Your task to perform on an android device: see creations saved in the google photos Image 0: 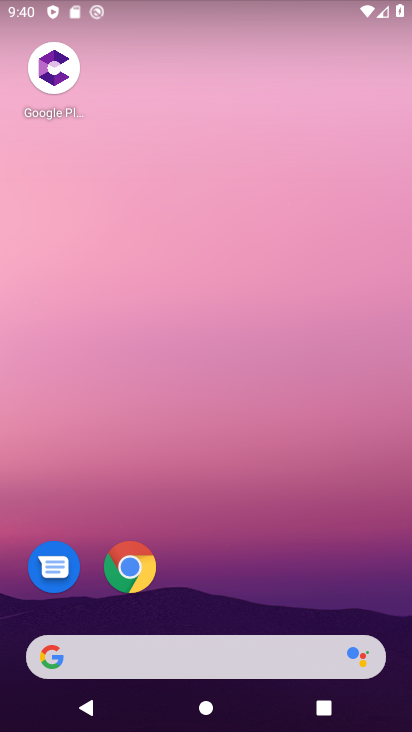
Step 0: drag from (247, 587) to (245, 55)
Your task to perform on an android device: see creations saved in the google photos Image 1: 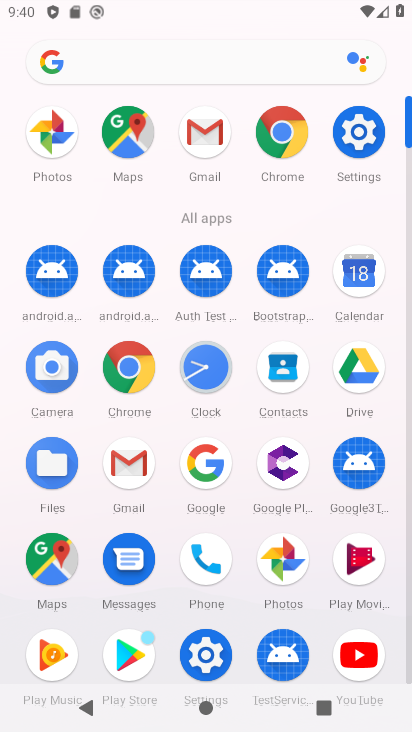
Step 1: click (278, 565)
Your task to perform on an android device: see creations saved in the google photos Image 2: 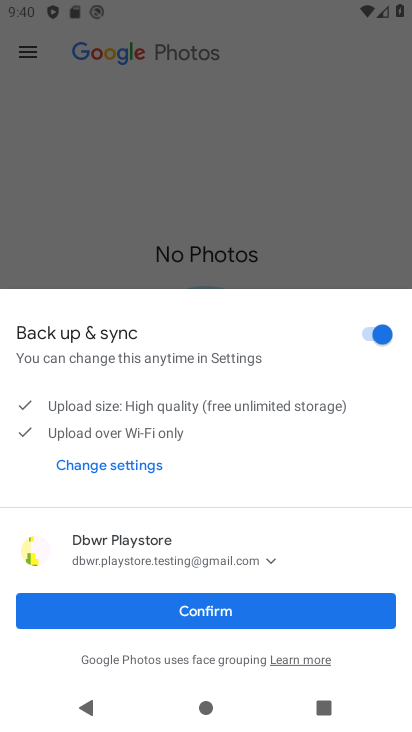
Step 2: click (196, 611)
Your task to perform on an android device: see creations saved in the google photos Image 3: 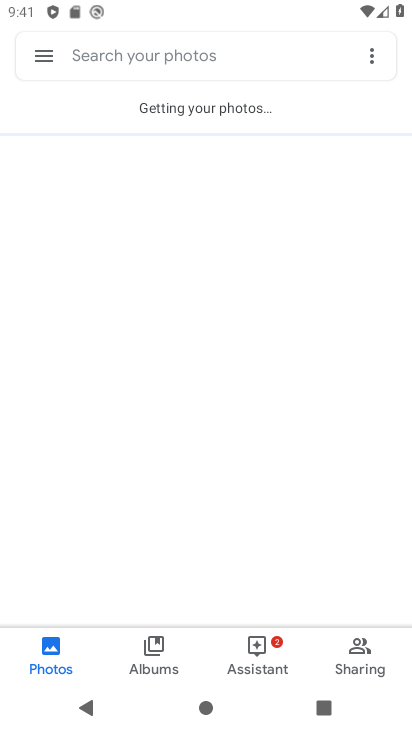
Step 3: click (181, 60)
Your task to perform on an android device: see creations saved in the google photos Image 4: 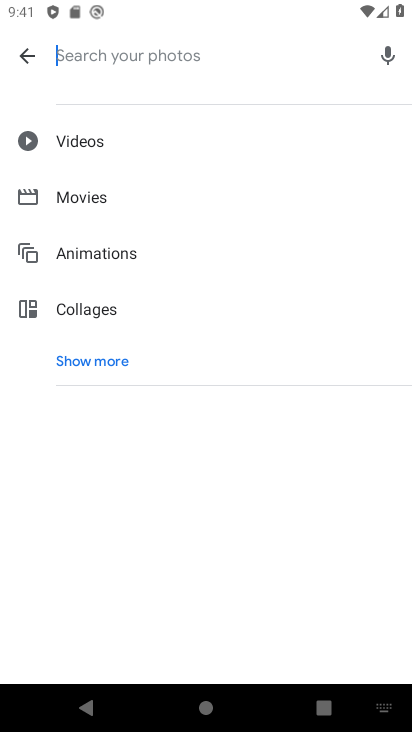
Step 4: click (90, 371)
Your task to perform on an android device: see creations saved in the google photos Image 5: 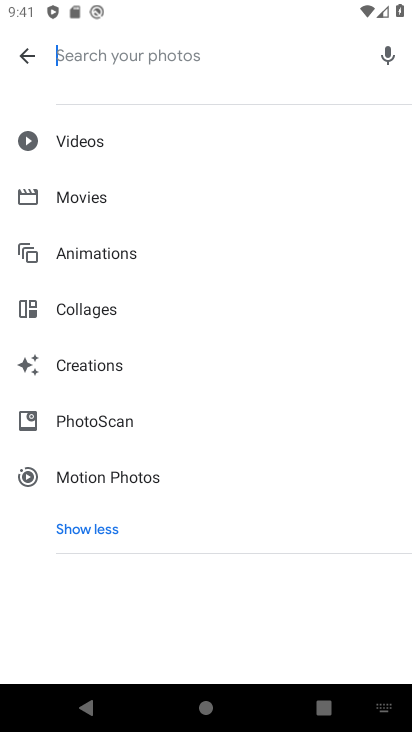
Step 5: click (92, 371)
Your task to perform on an android device: see creations saved in the google photos Image 6: 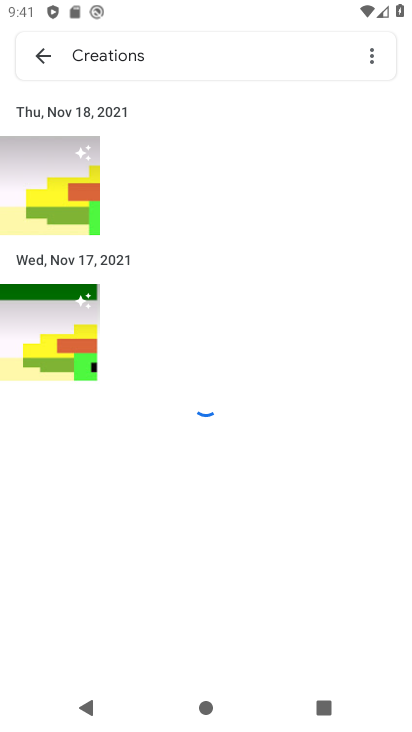
Step 6: task complete